Your task to perform on an android device: What's the weather today? Image 0: 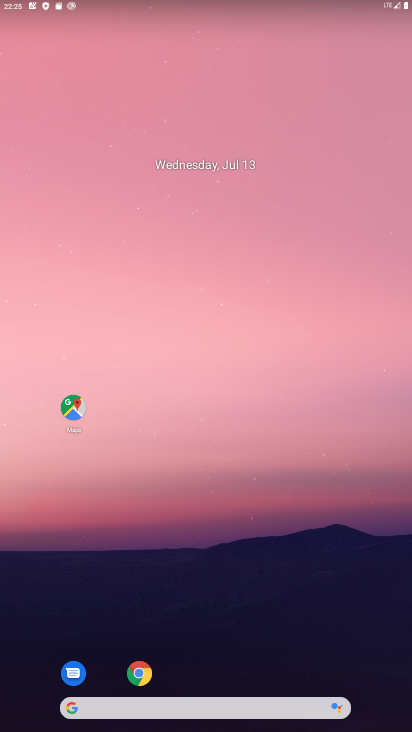
Step 0: drag from (209, 670) to (360, 106)
Your task to perform on an android device: What's the weather today? Image 1: 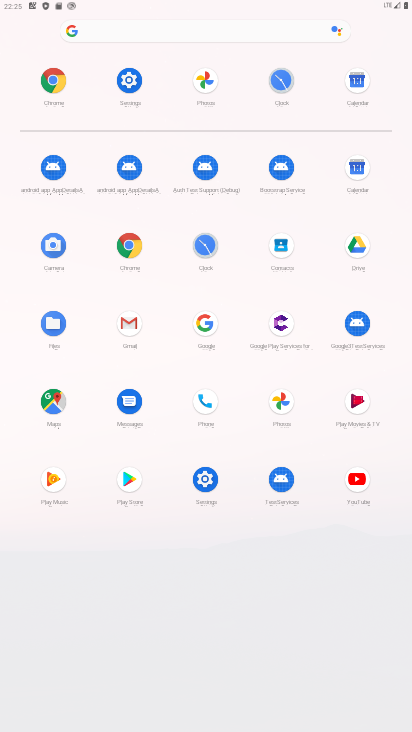
Step 1: click (185, 29)
Your task to perform on an android device: What's the weather today? Image 2: 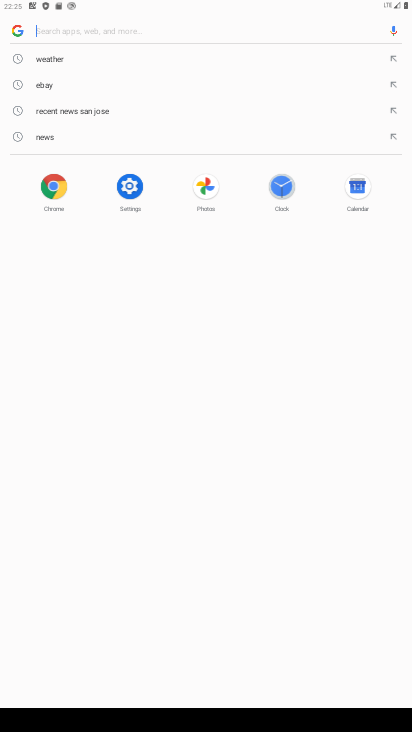
Step 2: click (61, 65)
Your task to perform on an android device: What's the weather today? Image 3: 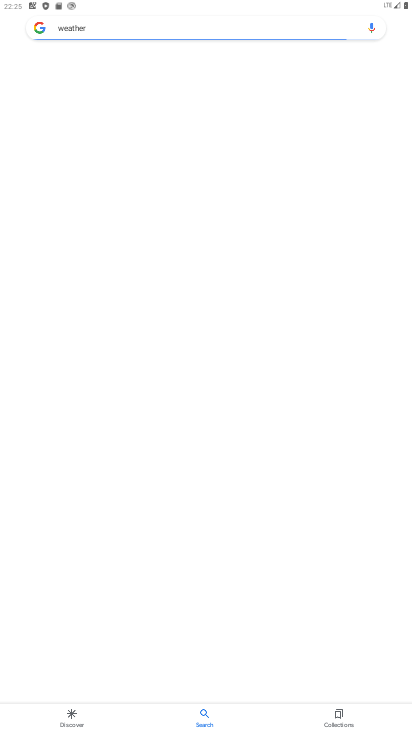
Step 3: task complete